Your task to perform on an android device: see tabs open on other devices in the chrome app Image 0: 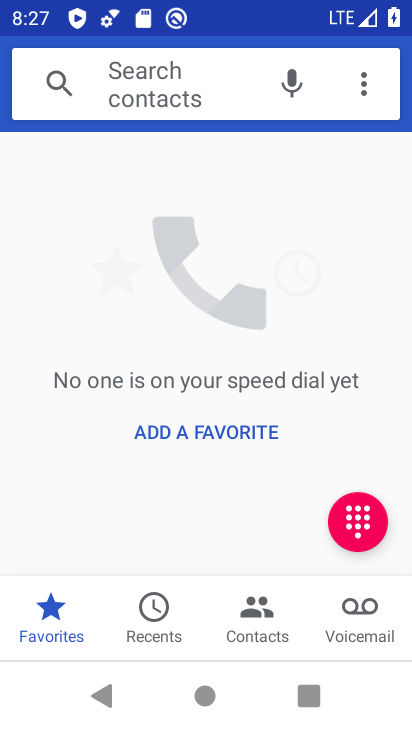
Step 0: press home button
Your task to perform on an android device: see tabs open on other devices in the chrome app Image 1: 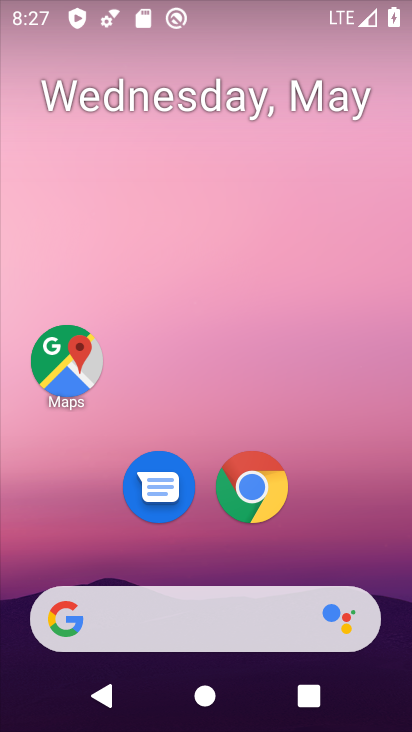
Step 1: click (238, 483)
Your task to perform on an android device: see tabs open on other devices in the chrome app Image 2: 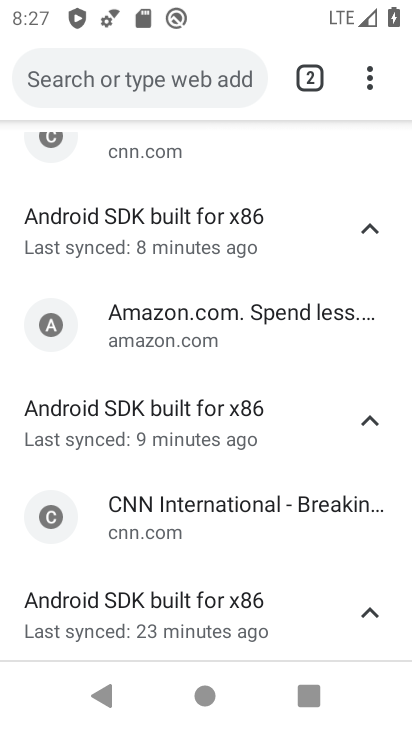
Step 2: task complete